Your task to perform on an android device: set the timer Image 0: 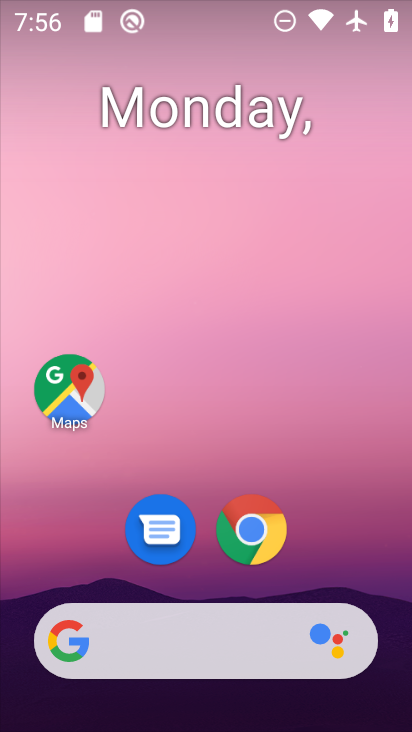
Step 0: drag from (279, 449) to (219, 80)
Your task to perform on an android device: set the timer Image 1: 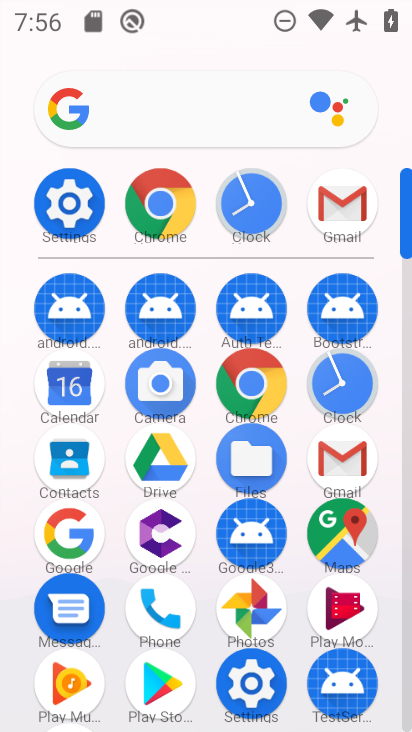
Step 1: click (251, 194)
Your task to perform on an android device: set the timer Image 2: 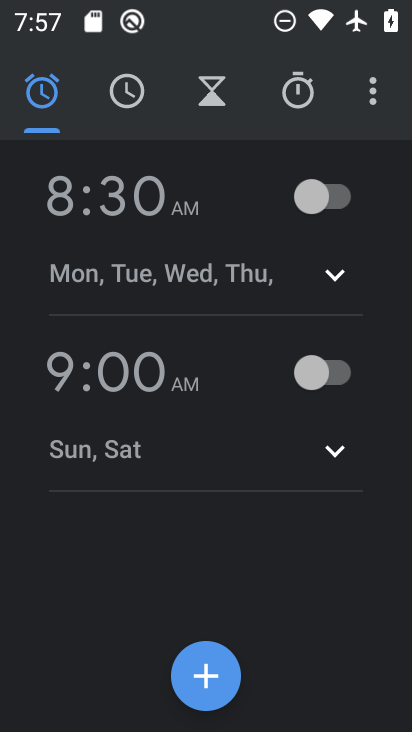
Step 2: click (371, 90)
Your task to perform on an android device: set the timer Image 3: 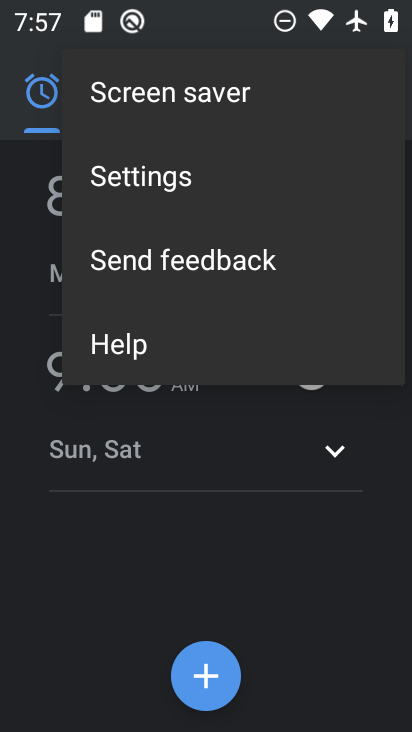
Step 3: click (166, 169)
Your task to perform on an android device: set the timer Image 4: 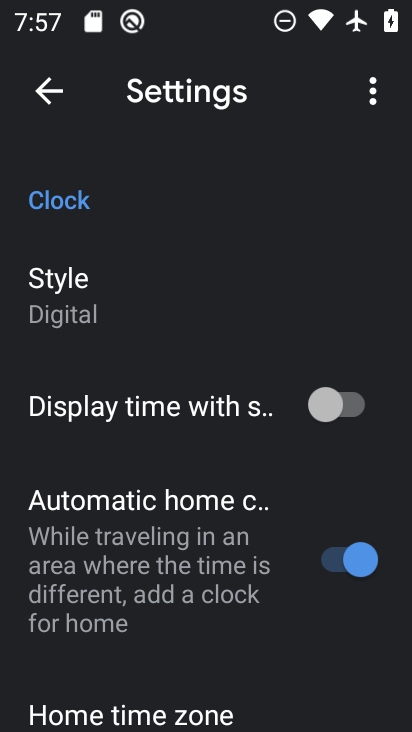
Step 4: drag from (225, 620) to (216, 296)
Your task to perform on an android device: set the timer Image 5: 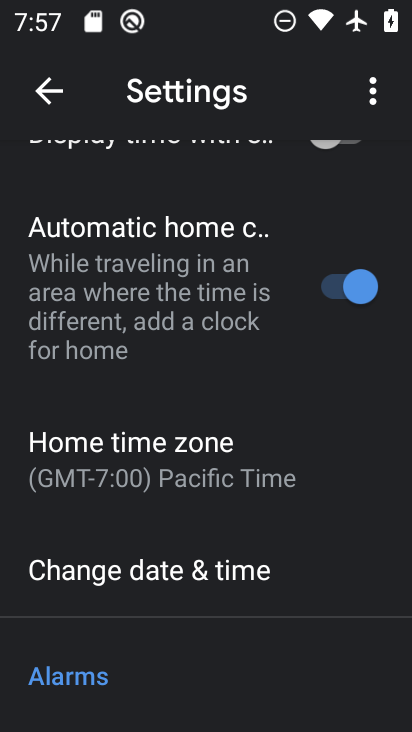
Step 5: drag from (235, 532) to (185, 282)
Your task to perform on an android device: set the timer Image 6: 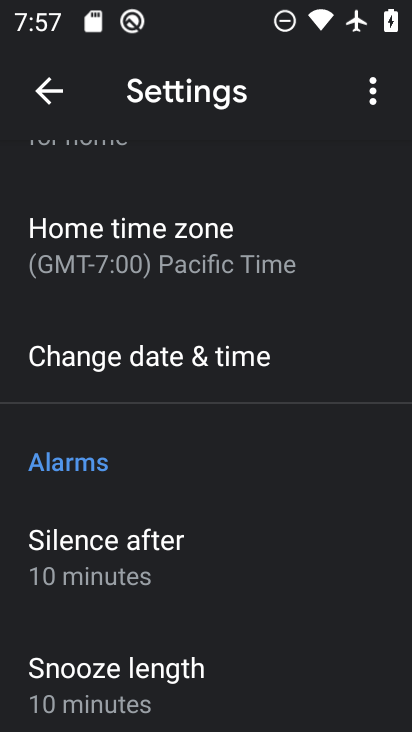
Step 6: drag from (245, 570) to (174, 122)
Your task to perform on an android device: set the timer Image 7: 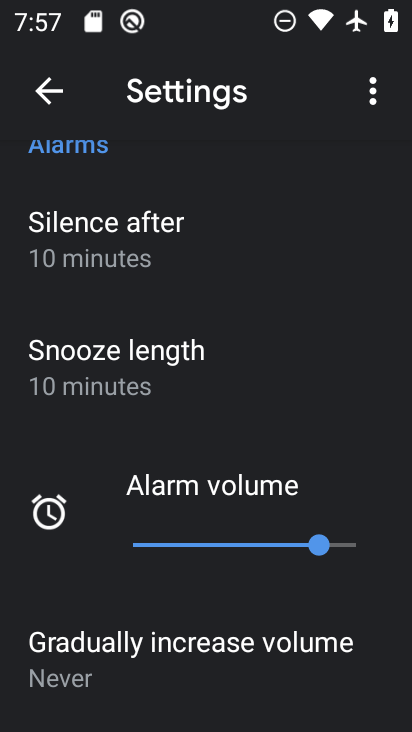
Step 7: drag from (192, 538) to (174, 251)
Your task to perform on an android device: set the timer Image 8: 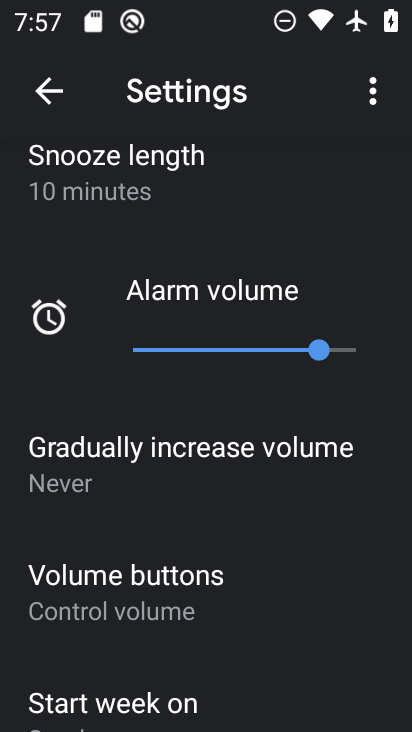
Step 8: drag from (234, 549) to (229, 254)
Your task to perform on an android device: set the timer Image 9: 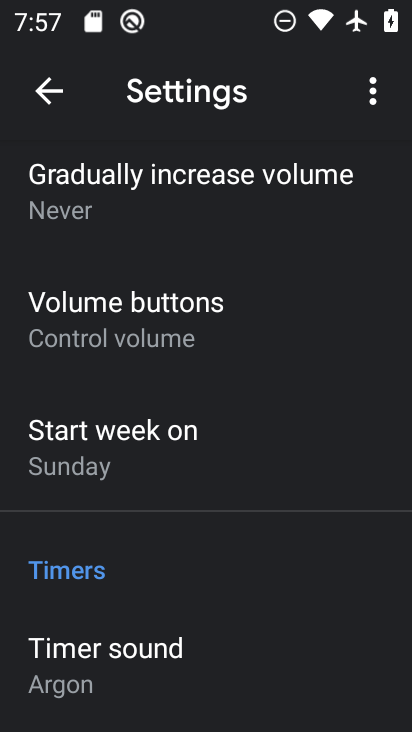
Step 9: drag from (246, 565) to (270, 299)
Your task to perform on an android device: set the timer Image 10: 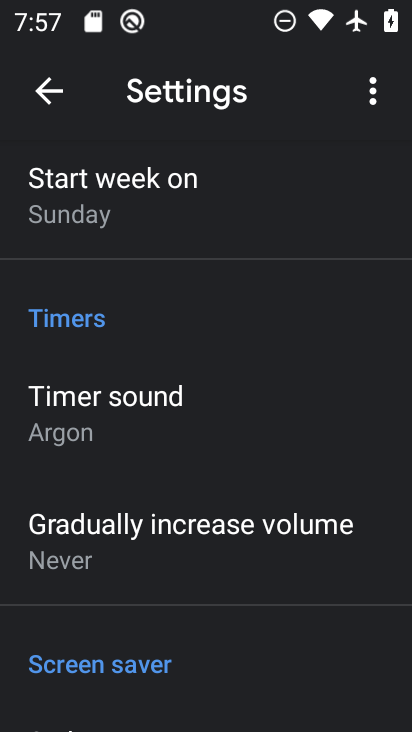
Step 10: click (109, 396)
Your task to perform on an android device: set the timer Image 11: 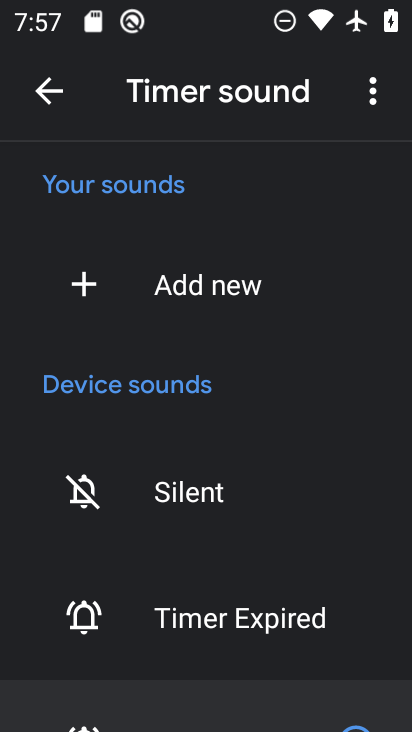
Step 11: drag from (197, 548) to (177, 388)
Your task to perform on an android device: set the timer Image 12: 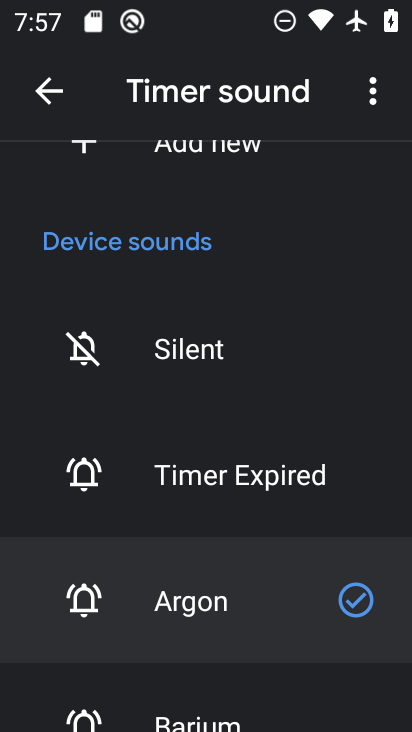
Step 12: click (184, 465)
Your task to perform on an android device: set the timer Image 13: 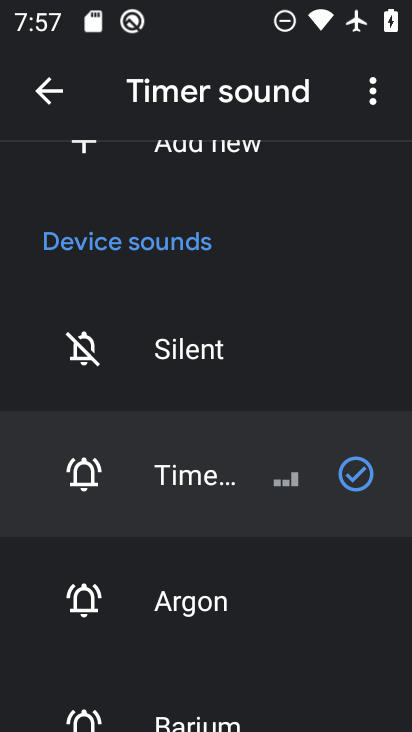
Step 13: task complete